Your task to perform on an android device: Open calendar and show me the first week of next month Image 0: 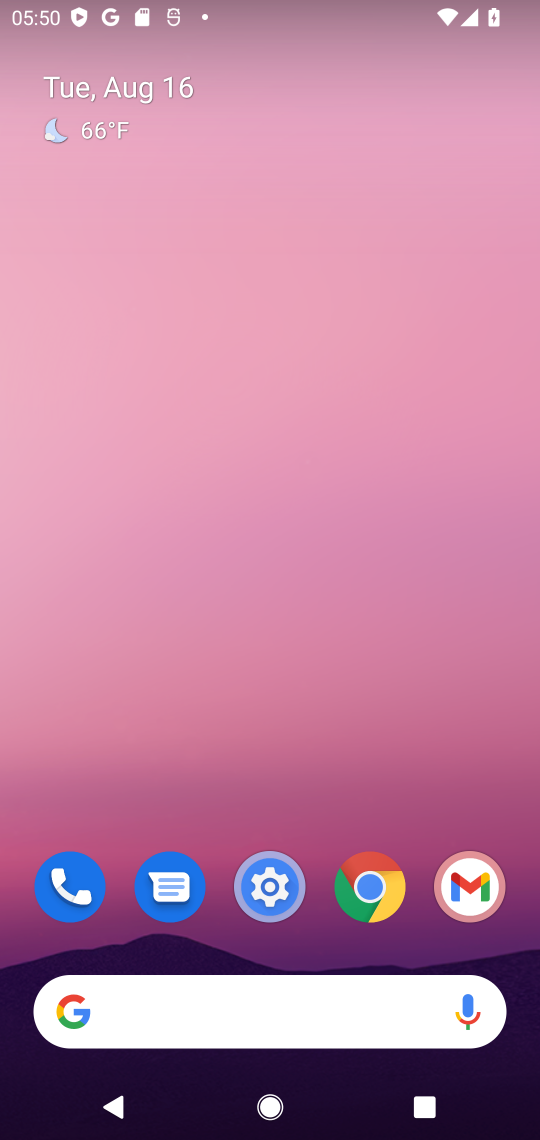
Step 0: drag from (294, 761) to (344, 34)
Your task to perform on an android device: Open calendar and show me the first week of next month Image 1: 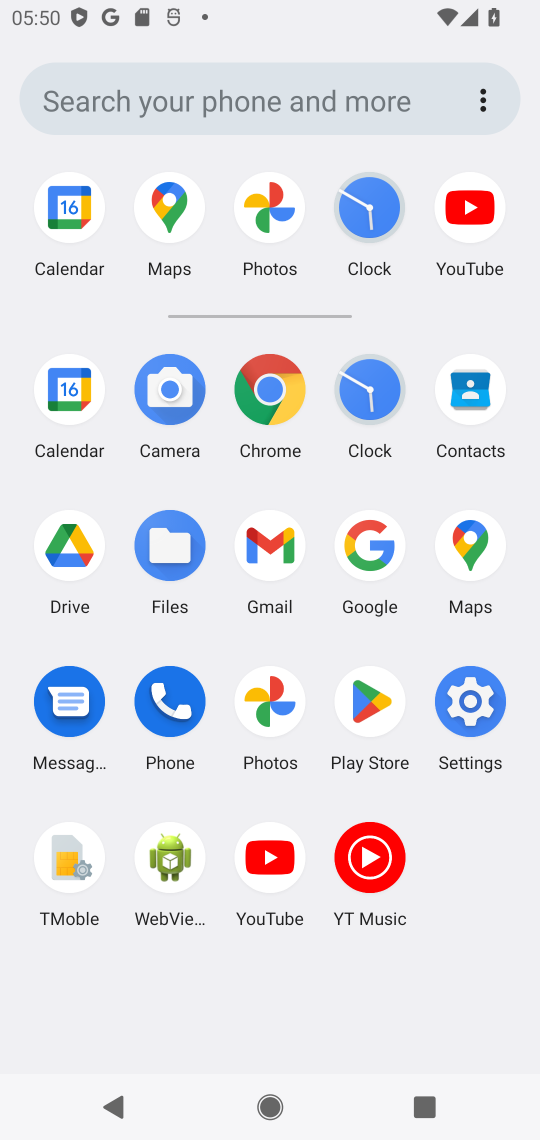
Step 1: click (58, 388)
Your task to perform on an android device: Open calendar and show me the first week of next month Image 2: 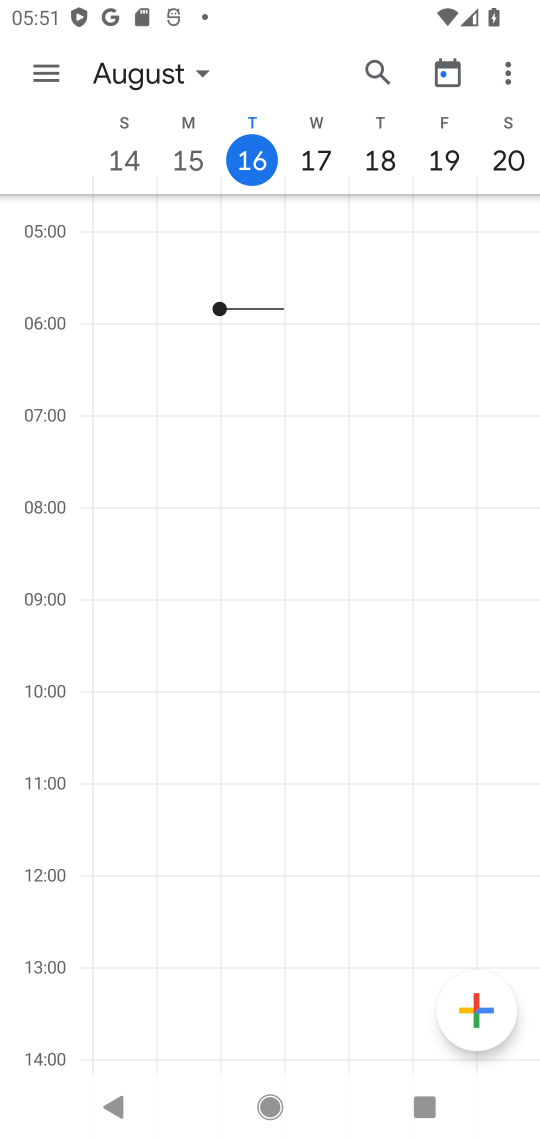
Step 2: click (133, 64)
Your task to perform on an android device: Open calendar and show me the first week of next month Image 3: 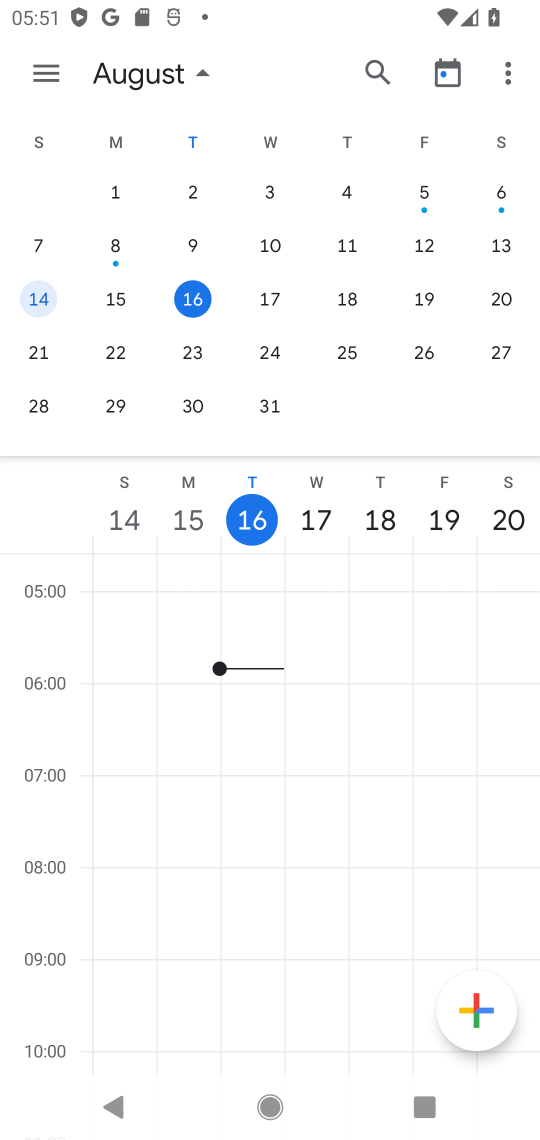
Step 3: drag from (492, 318) to (64, 263)
Your task to perform on an android device: Open calendar and show me the first week of next month Image 4: 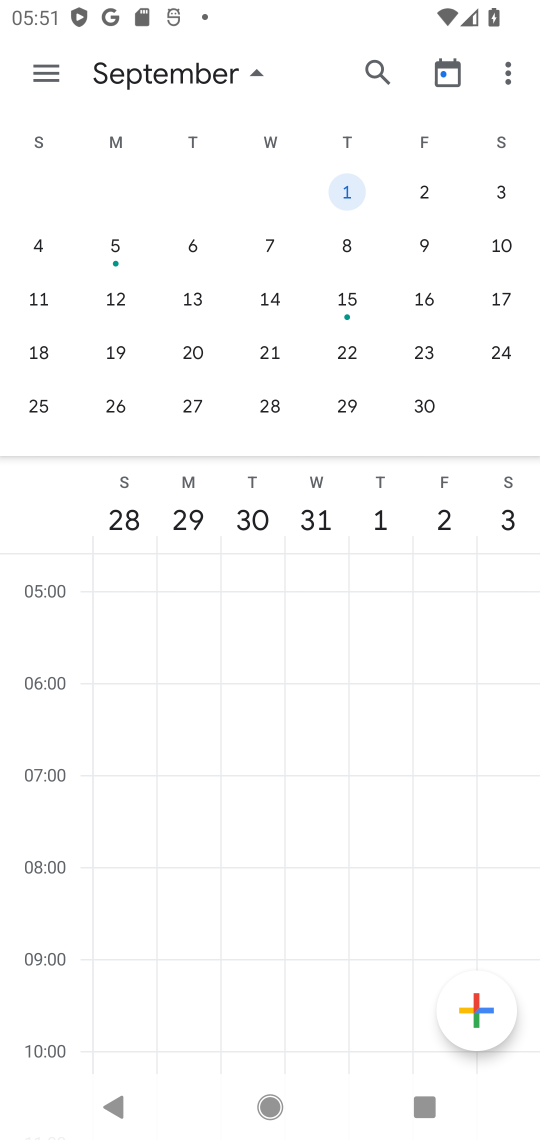
Step 4: click (108, 247)
Your task to perform on an android device: Open calendar and show me the first week of next month Image 5: 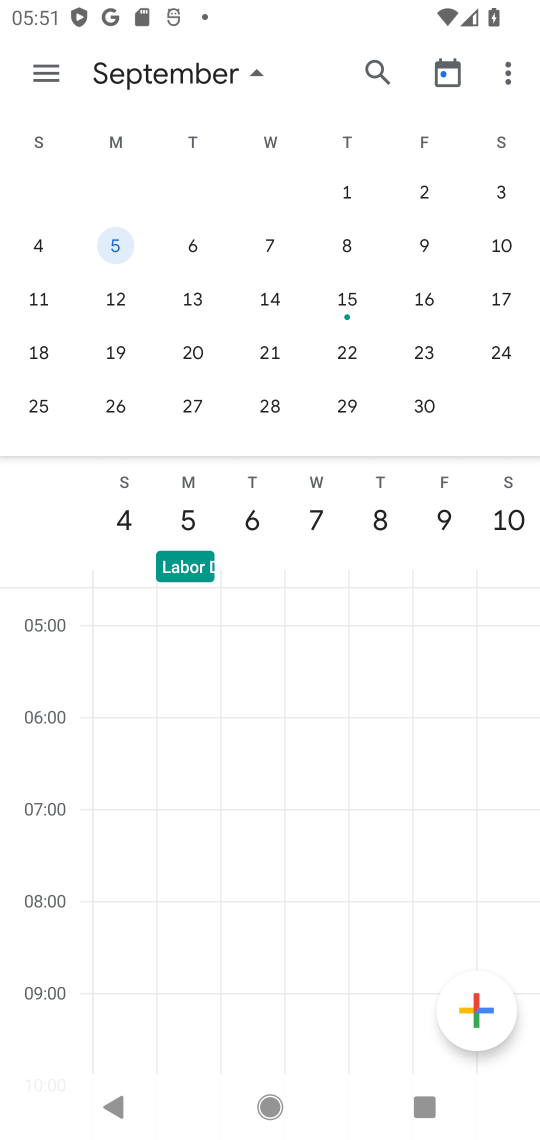
Step 5: task complete